Your task to perform on an android device: show emergency info Image 0: 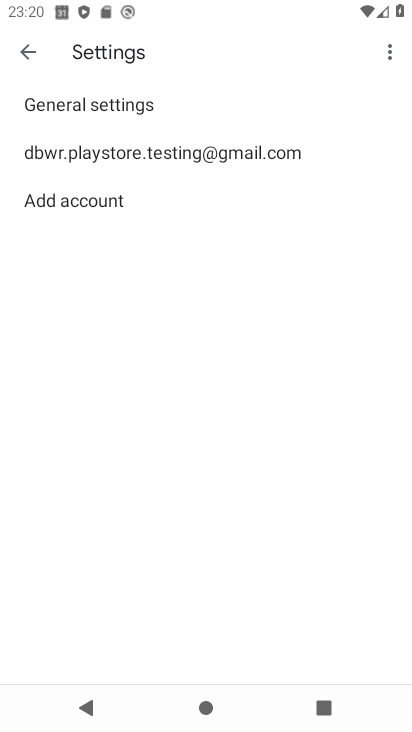
Step 0: press back button
Your task to perform on an android device: show emergency info Image 1: 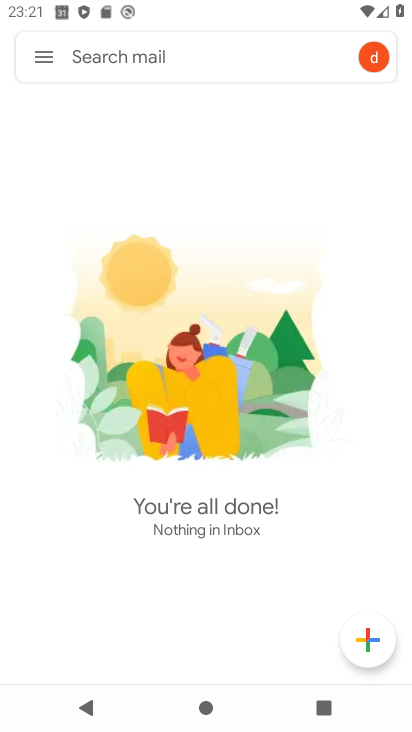
Step 1: press back button
Your task to perform on an android device: show emergency info Image 2: 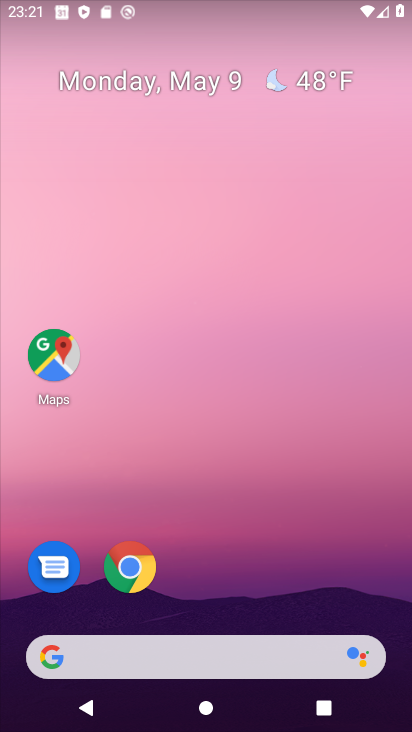
Step 2: drag from (246, 598) to (249, 2)
Your task to perform on an android device: show emergency info Image 3: 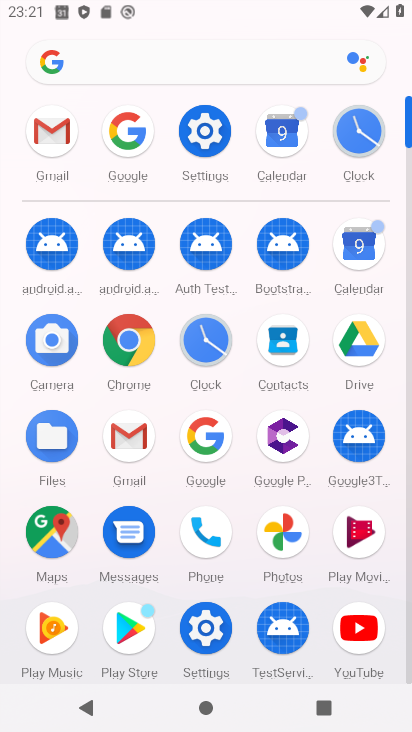
Step 3: click (204, 629)
Your task to perform on an android device: show emergency info Image 4: 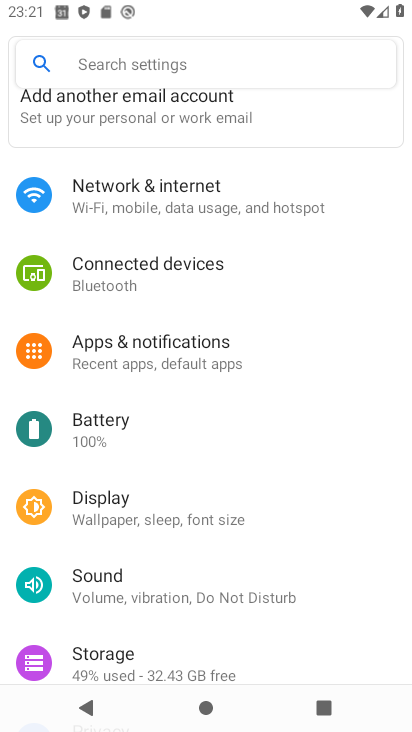
Step 4: drag from (154, 543) to (187, 444)
Your task to perform on an android device: show emergency info Image 5: 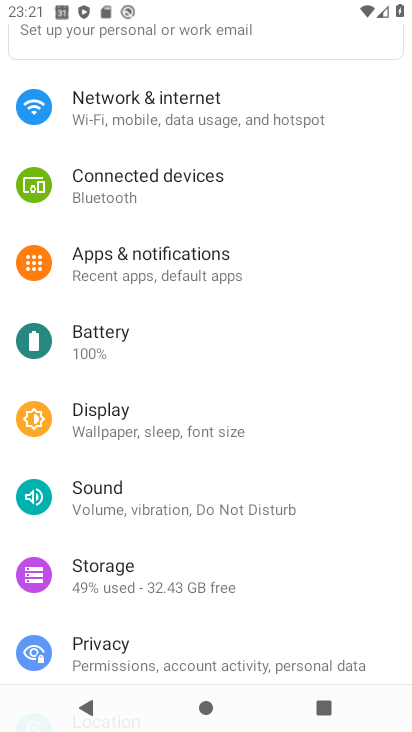
Step 5: drag from (128, 604) to (205, 451)
Your task to perform on an android device: show emergency info Image 6: 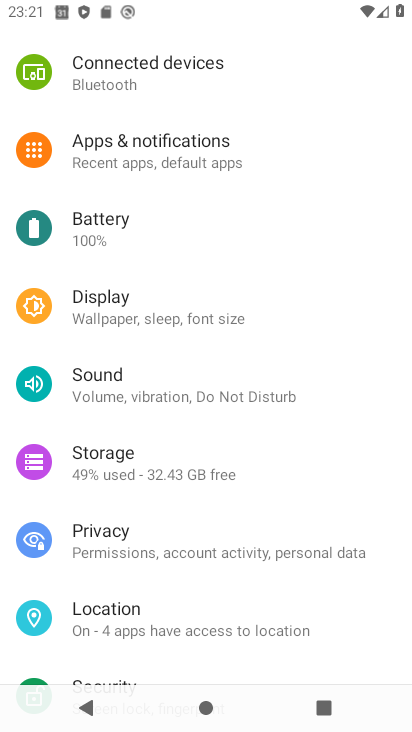
Step 6: drag from (161, 592) to (220, 411)
Your task to perform on an android device: show emergency info Image 7: 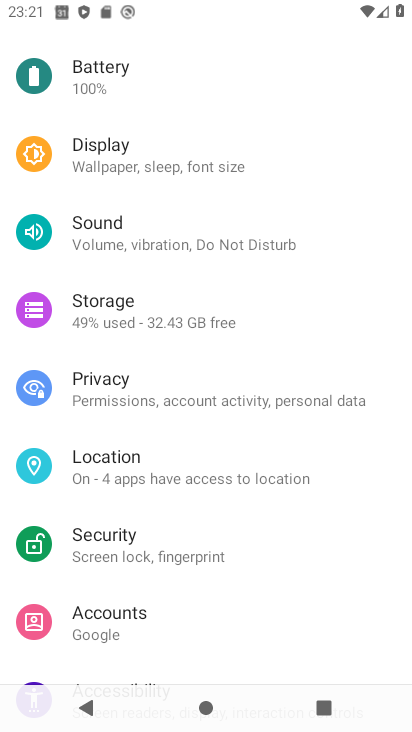
Step 7: drag from (160, 618) to (217, 463)
Your task to perform on an android device: show emergency info Image 8: 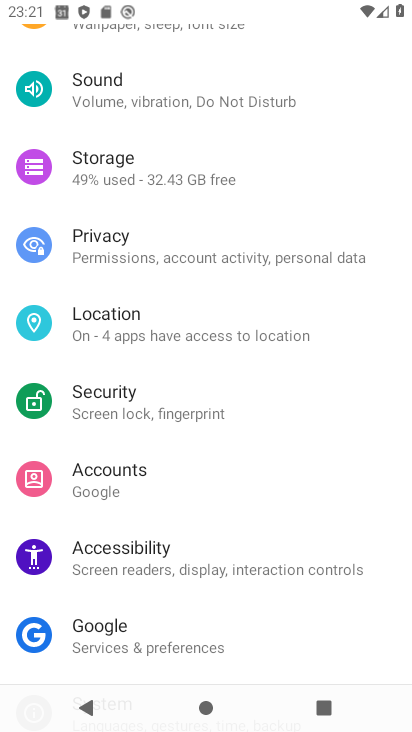
Step 8: drag from (168, 607) to (230, 415)
Your task to perform on an android device: show emergency info Image 9: 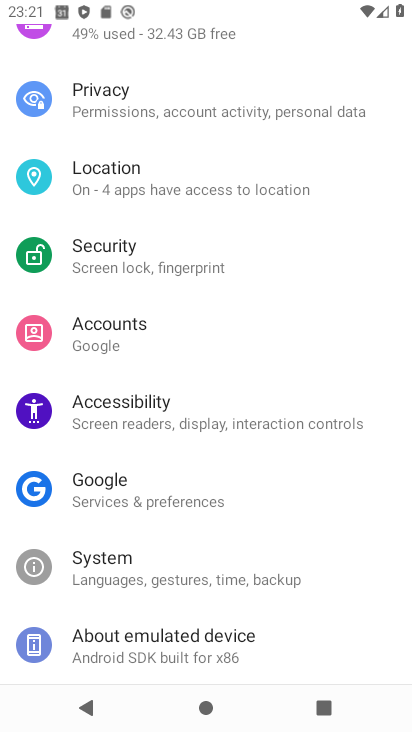
Step 9: click (139, 636)
Your task to perform on an android device: show emergency info Image 10: 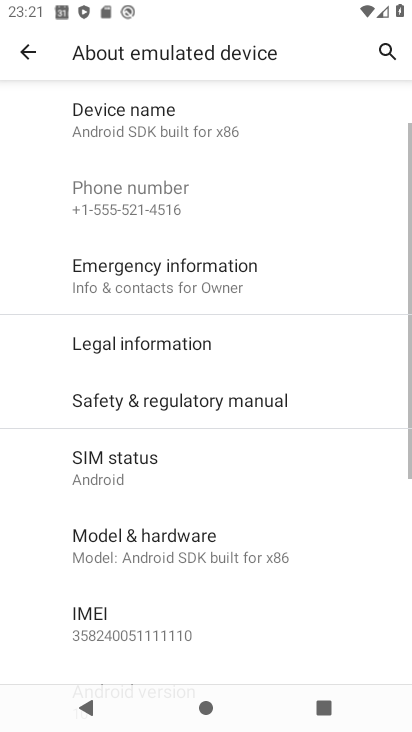
Step 10: click (215, 269)
Your task to perform on an android device: show emergency info Image 11: 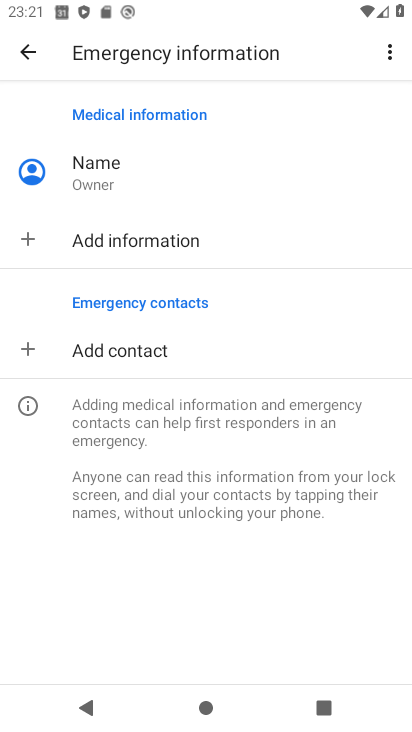
Step 11: task complete